Your task to perform on an android device: What's the weather going to be tomorrow? Image 0: 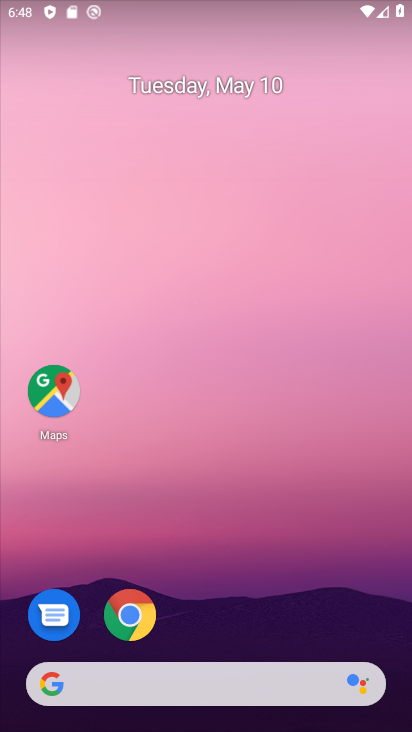
Step 0: click (208, 678)
Your task to perform on an android device: What's the weather going to be tomorrow? Image 1: 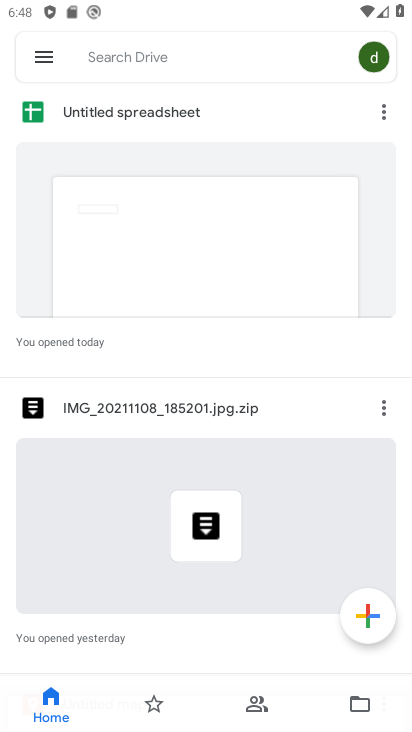
Step 1: press home button
Your task to perform on an android device: What's the weather going to be tomorrow? Image 2: 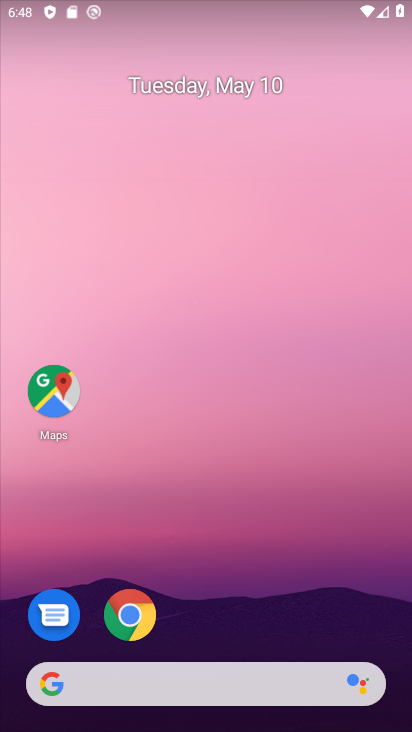
Step 2: click (216, 678)
Your task to perform on an android device: What's the weather going to be tomorrow? Image 3: 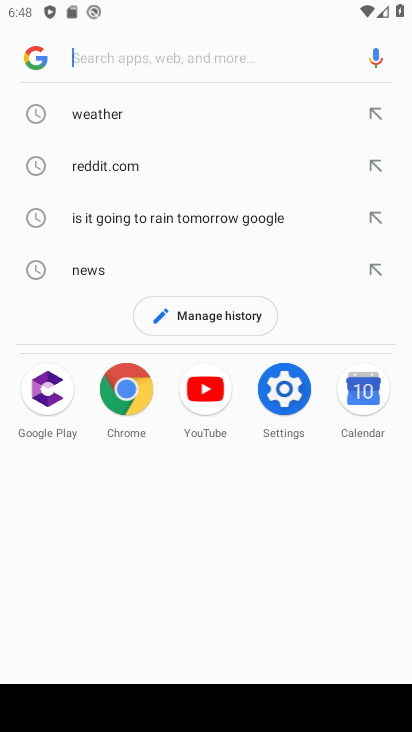
Step 3: click (114, 113)
Your task to perform on an android device: What's the weather going to be tomorrow? Image 4: 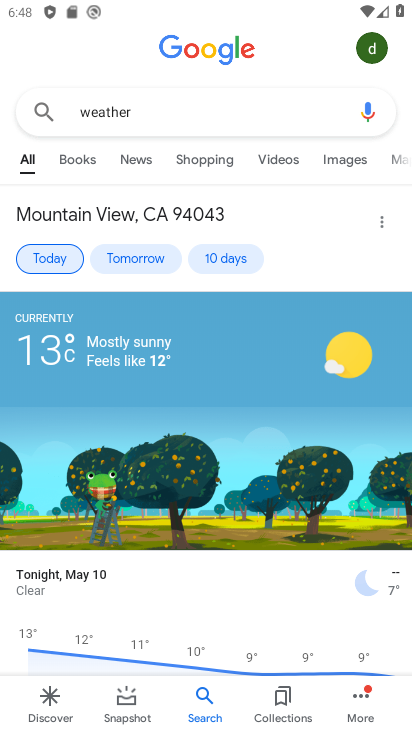
Step 4: click (130, 261)
Your task to perform on an android device: What's the weather going to be tomorrow? Image 5: 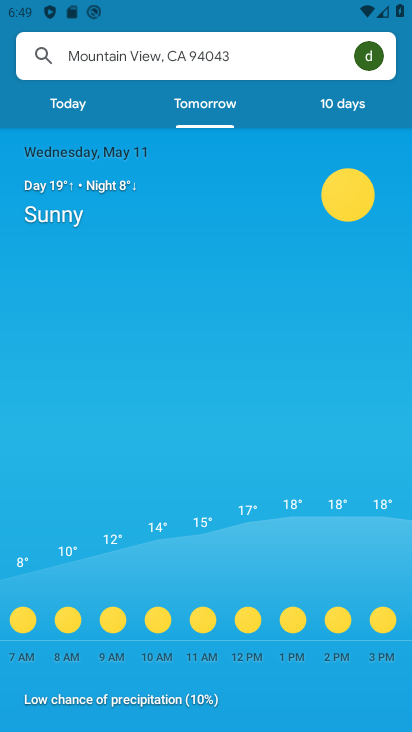
Step 5: task complete